Your task to perform on an android device: Open Wikipedia Image 0: 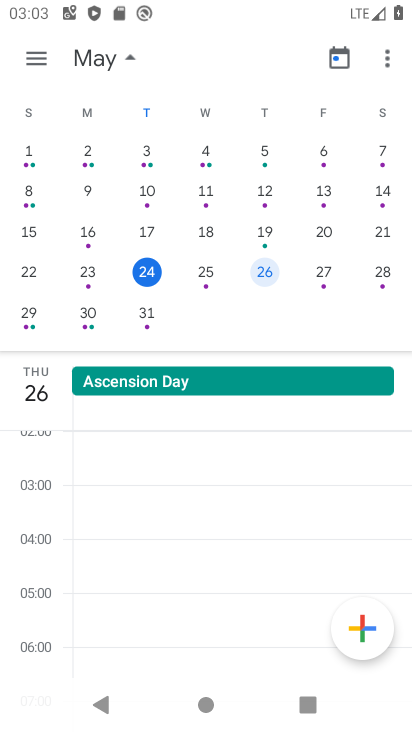
Step 0: drag from (250, 523) to (269, 246)
Your task to perform on an android device: Open Wikipedia Image 1: 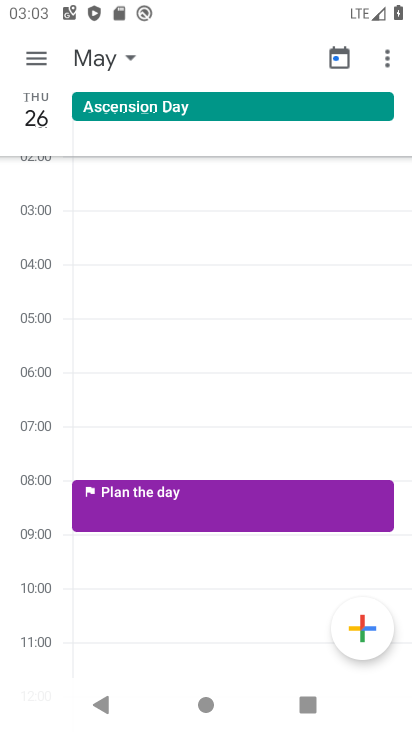
Step 1: press home button
Your task to perform on an android device: Open Wikipedia Image 2: 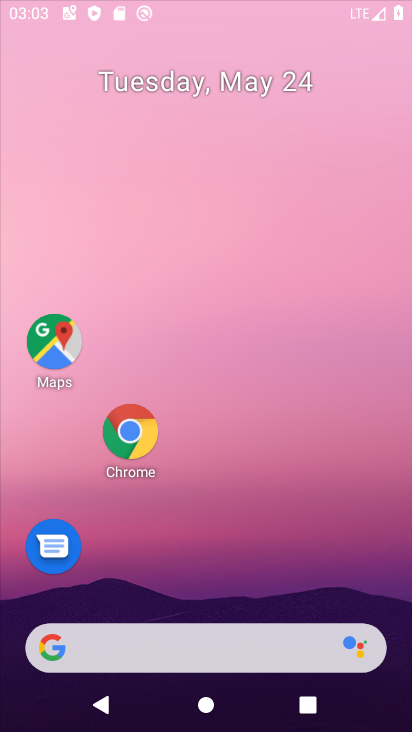
Step 2: drag from (202, 560) to (227, 30)
Your task to perform on an android device: Open Wikipedia Image 3: 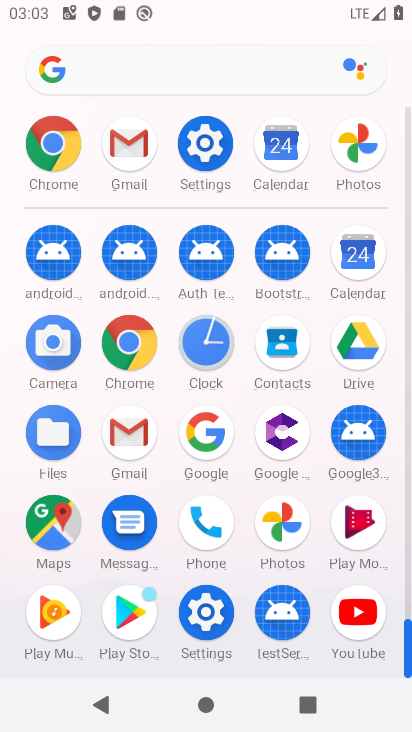
Step 3: click (180, 53)
Your task to perform on an android device: Open Wikipedia Image 4: 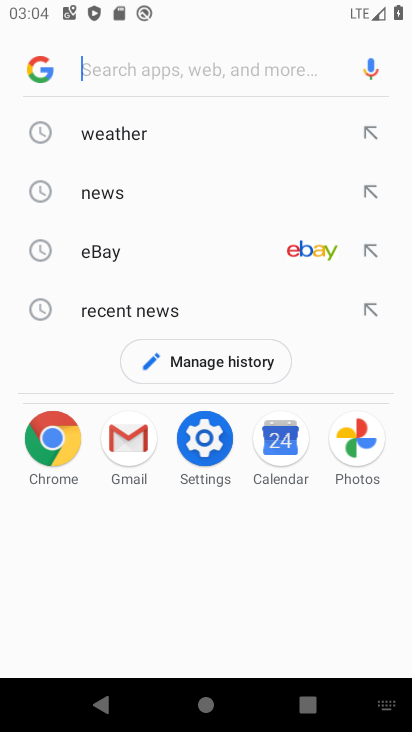
Step 4: type "wikipedia"
Your task to perform on an android device: Open Wikipedia Image 5: 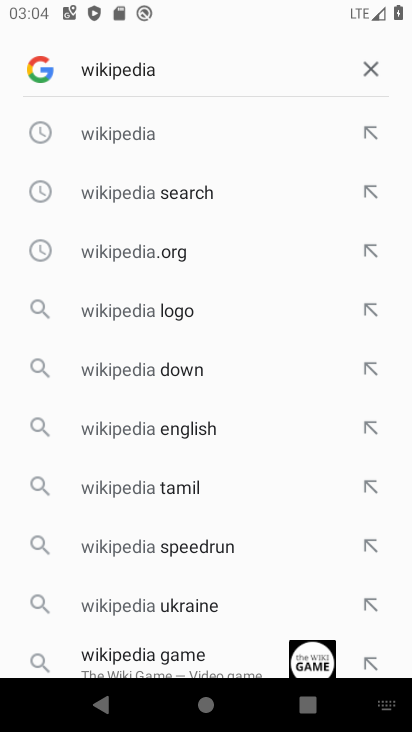
Step 5: click (92, 137)
Your task to perform on an android device: Open Wikipedia Image 6: 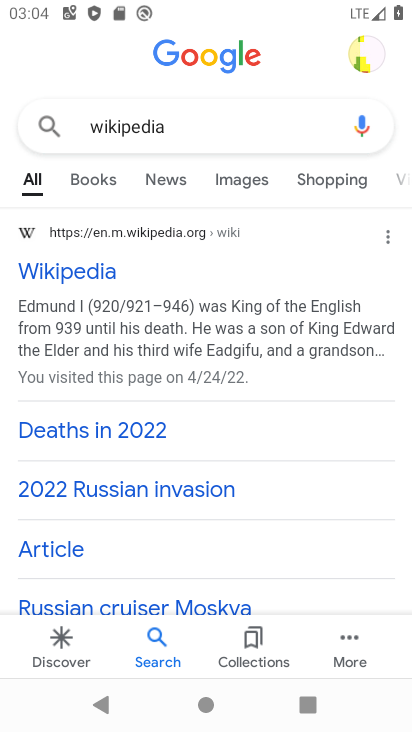
Step 6: drag from (218, 420) to (280, 110)
Your task to perform on an android device: Open Wikipedia Image 7: 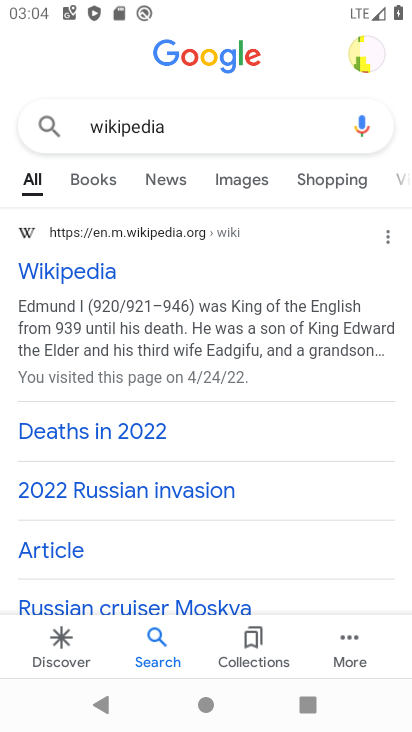
Step 7: click (60, 266)
Your task to perform on an android device: Open Wikipedia Image 8: 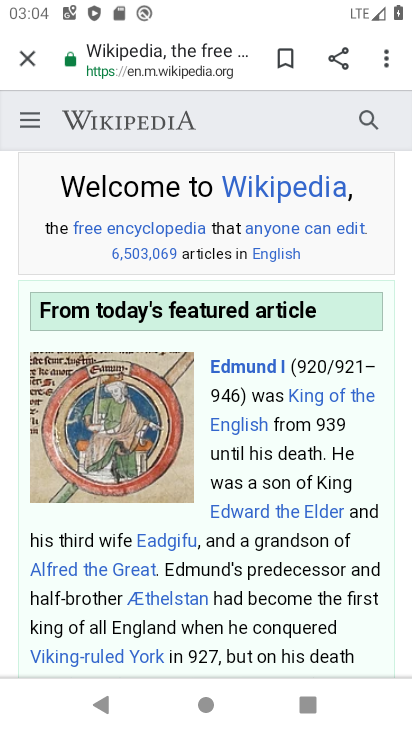
Step 8: task complete